Your task to perform on an android device: manage bookmarks in the chrome app Image 0: 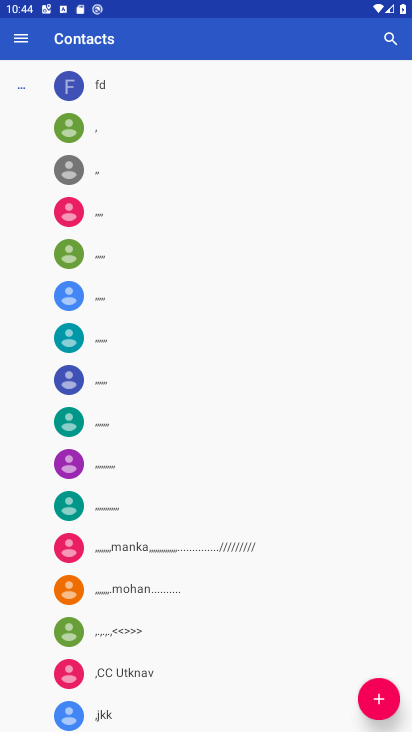
Step 0: press home button
Your task to perform on an android device: manage bookmarks in the chrome app Image 1: 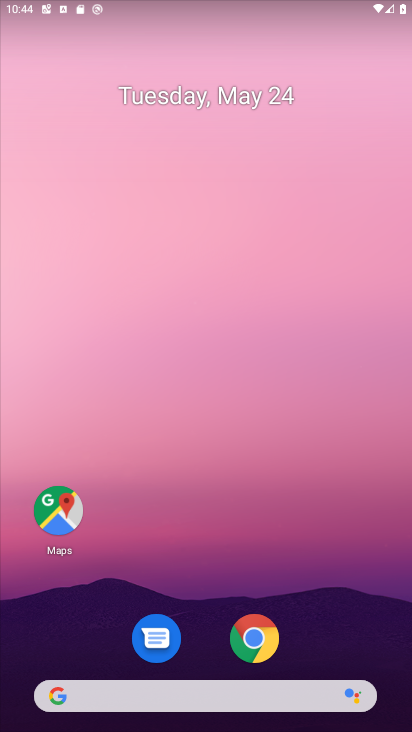
Step 1: click (264, 637)
Your task to perform on an android device: manage bookmarks in the chrome app Image 2: 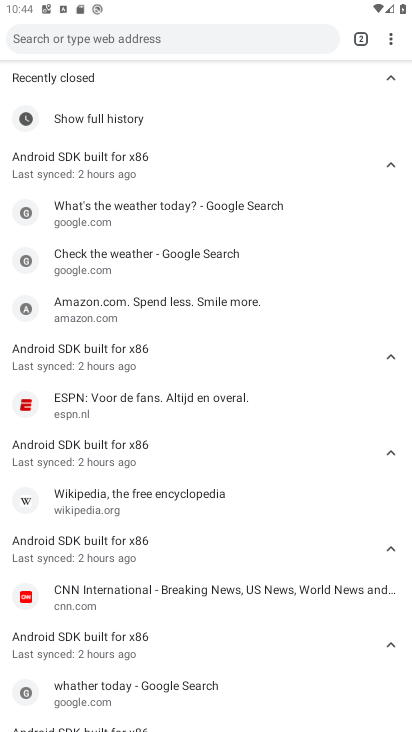
Step 2: click (387, 31)
Your task to perform on an android device: manage bookmarks in the chrome app Image 3: 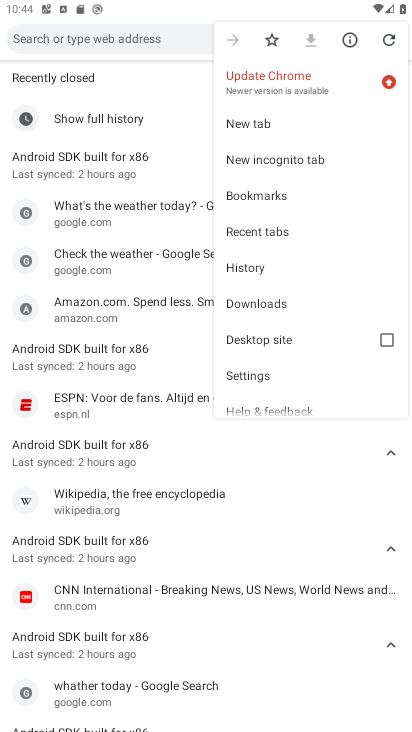
Step 3: click (284, 192)
Your task to perform on an android device: manage bookmarks in the chrome app Image 4: 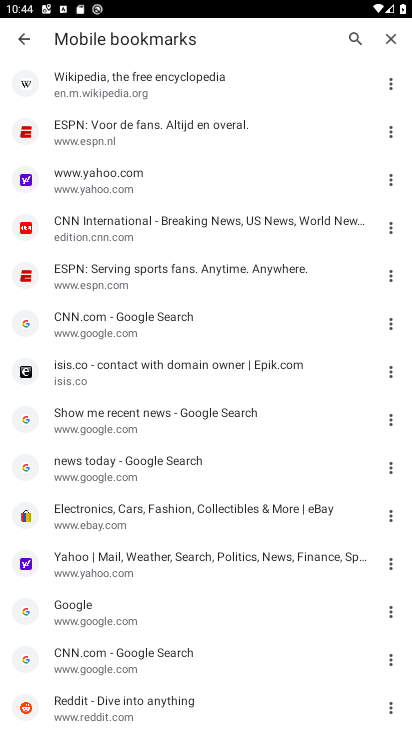
Step 4: click (388, 179)
Your task to perform on an android device: manage bookmarks in the chrome app Image 5: 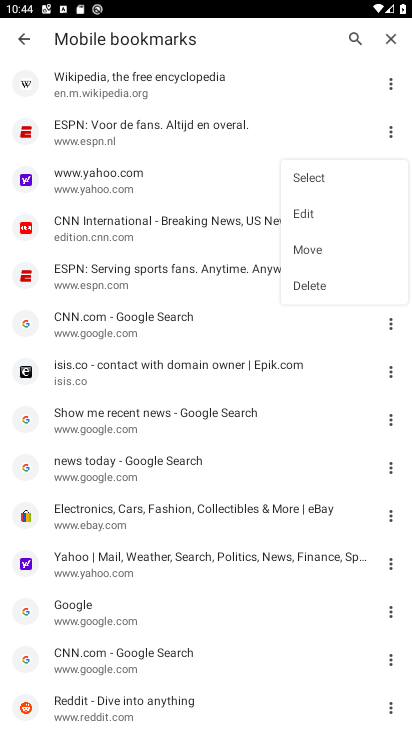
Step 5: click (311, 283)
Your task to perform on an android device: manage bookmarks in the chrome app Image 6: 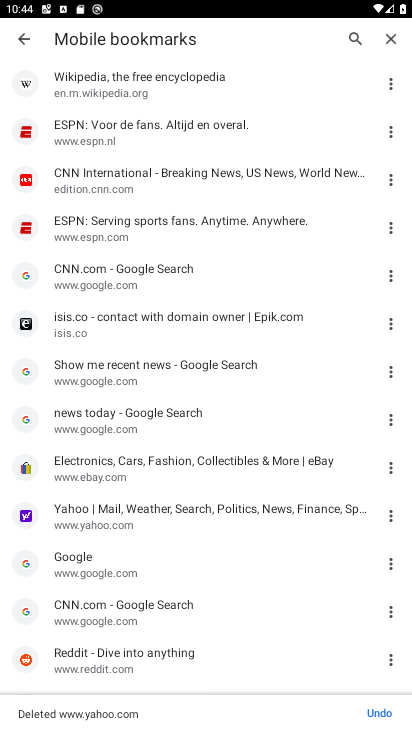
Step 6: task complete